Your task to perform on an android device: Go to battery settings Image 0: 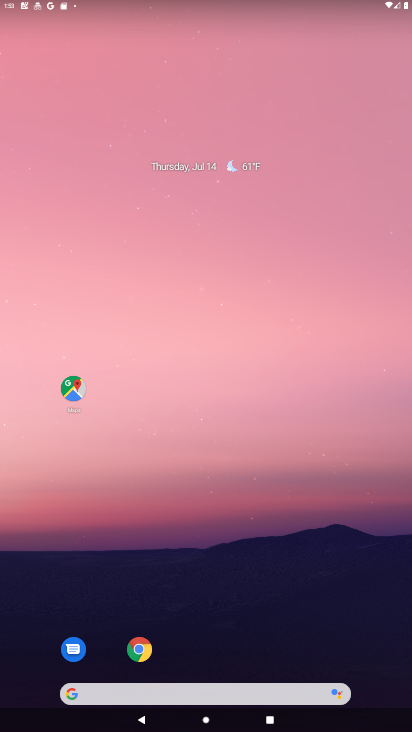
Step 0: drag from (129, 682) to (61, 180)
Your task to perform on an android device: Go to battery settings Image 1: 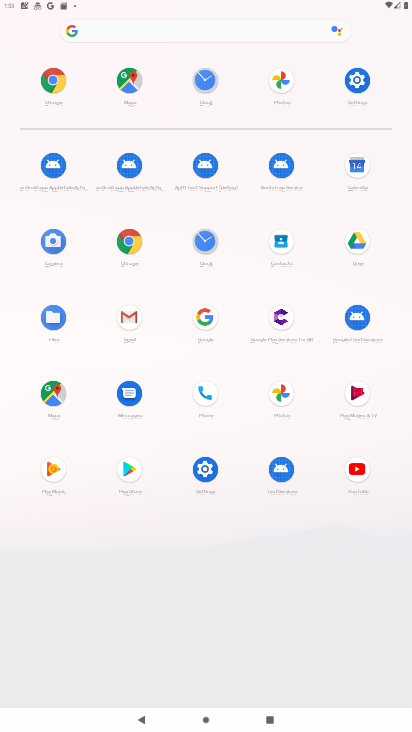
Step 1: click (355, 86)
Your task to perform on an android device: Go to battery settings Image 2: 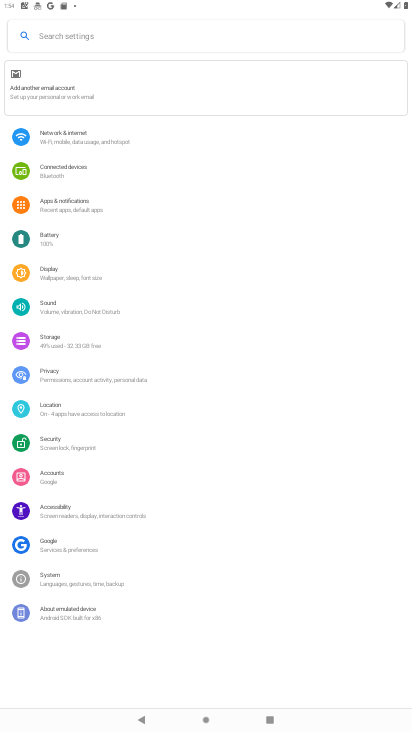
Step 2: click (62, 239)
Your task to perform on an android device: Go to battery settings Image 3: 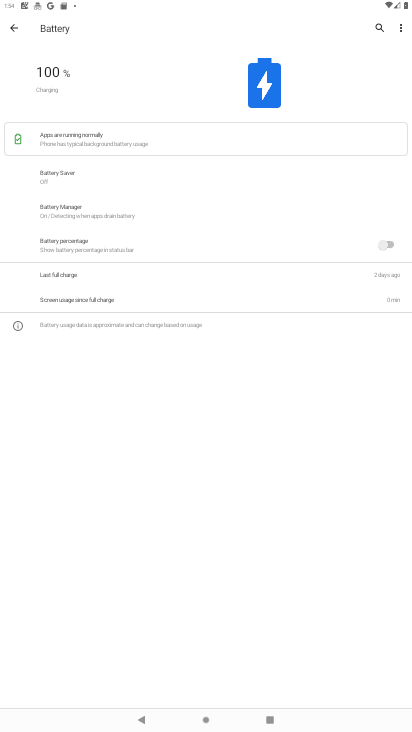
Step 3: task complete